Your task to perform on an android device: open a bookmark in the chrome app Image 0: 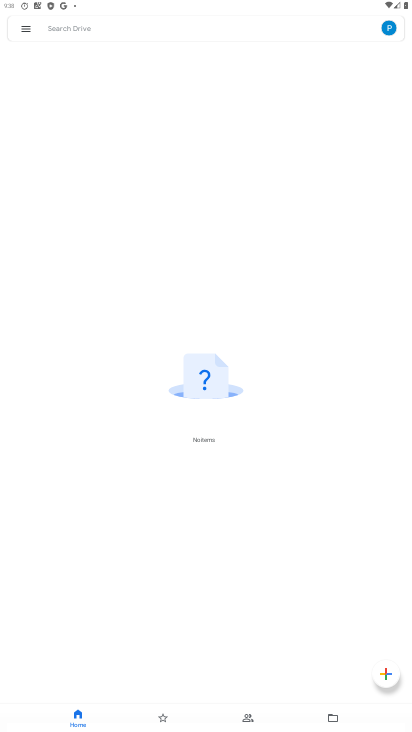
Step 0: press home button
Your task to perform on an android device: open a bookmark in the chrome app Image 1: 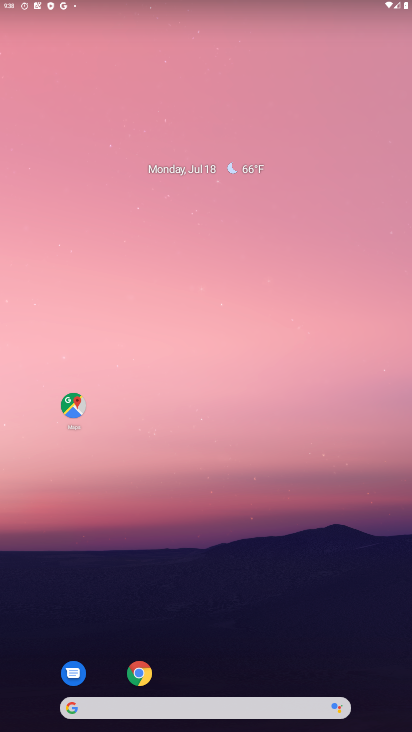
Step 1: drag from (180, 687) to (183, 177)
Your task to perform on an android device: open a bookmark in the chrome app Image 2: 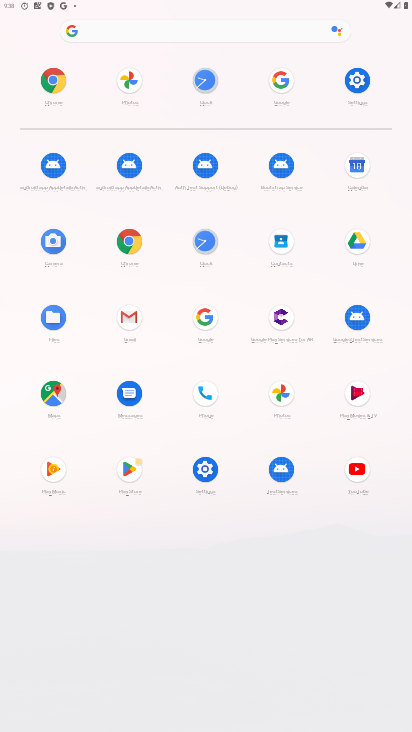
Step 2: click (130, 240)
Your task to perform on an android device: open a bookmark in the chrome app Image 3: 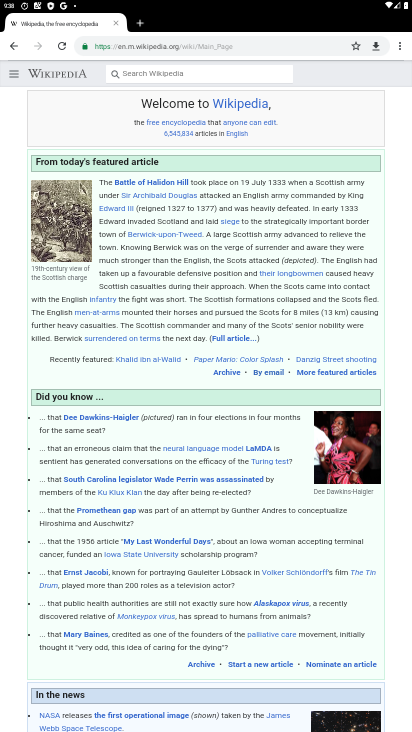
Step 3: click (396, 47)
Your task to perform on an android device: open a bookmark in the chrome app Image 4: 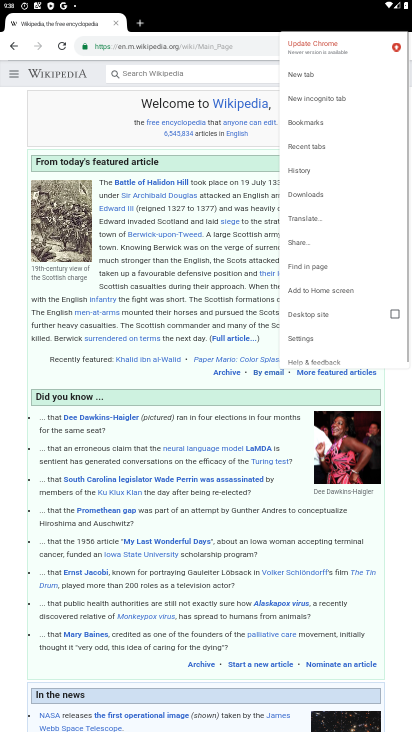
Step 4: click (306, 125)
Your task to perform on an android device: open a bookmark in the chrome app Image 5: 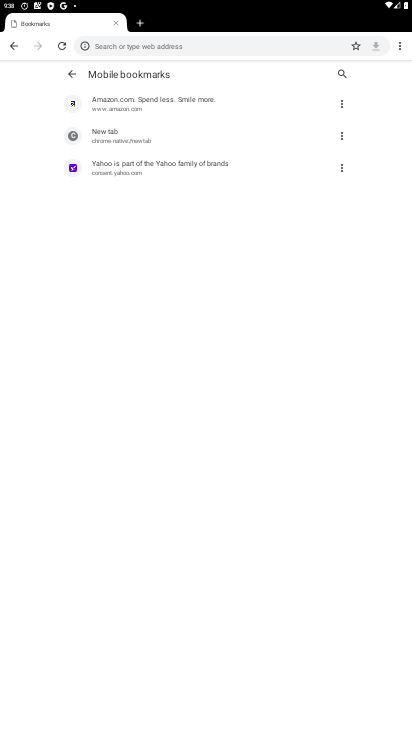
Step 5: click (139, 104)
Your task to perform on an android device: open a bookmark in the chrome app Image 6: 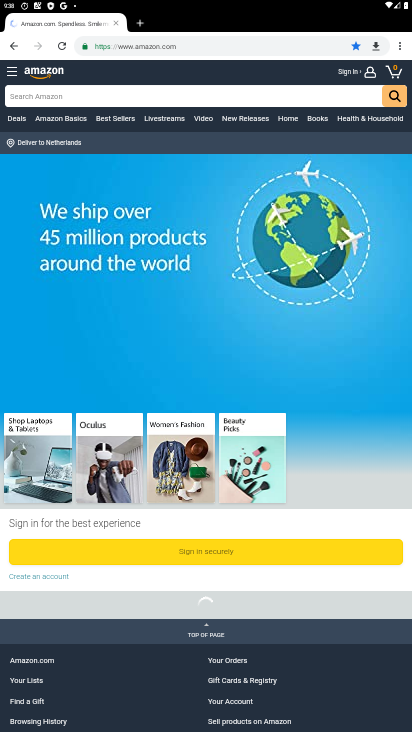
Step 6: task complete